Your task to perform on an android device: toggle priority inbox in the gmail app Image 0: 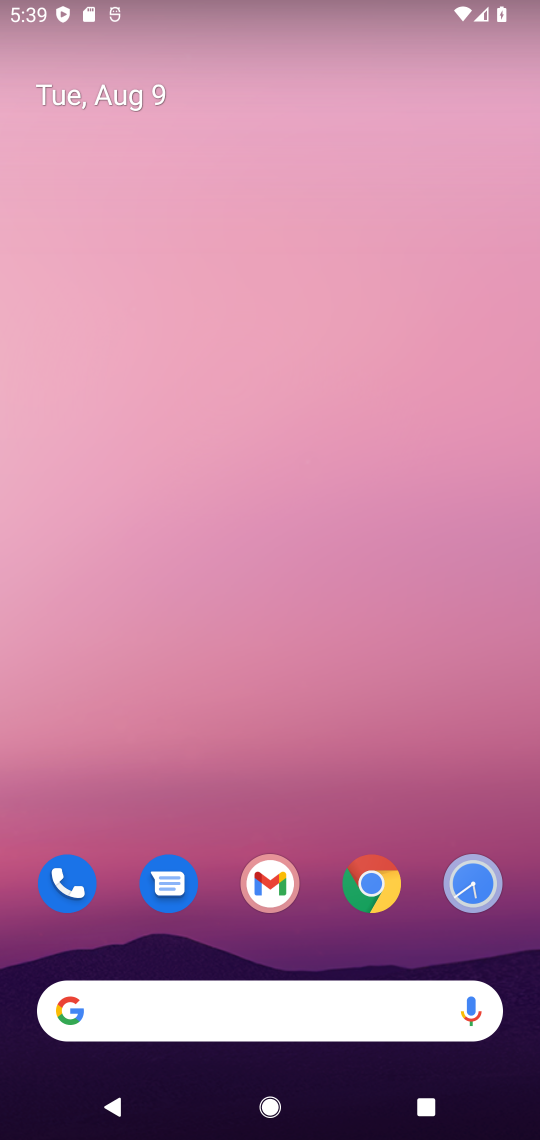
Step 0: drag from (223, 804) to (319, 113)
Your task to perform on an android device: toggle priority inbox in the gmail app Image 1: 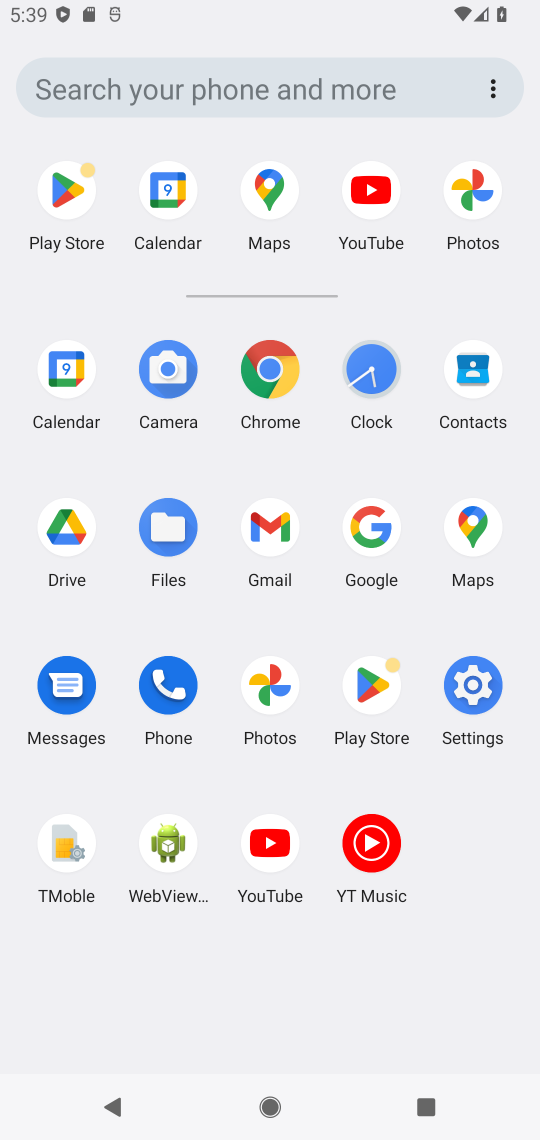
Step 1: click (270, 560)
Your task to perform on an android device: toggle priority inbox in the gmail app Image 2: 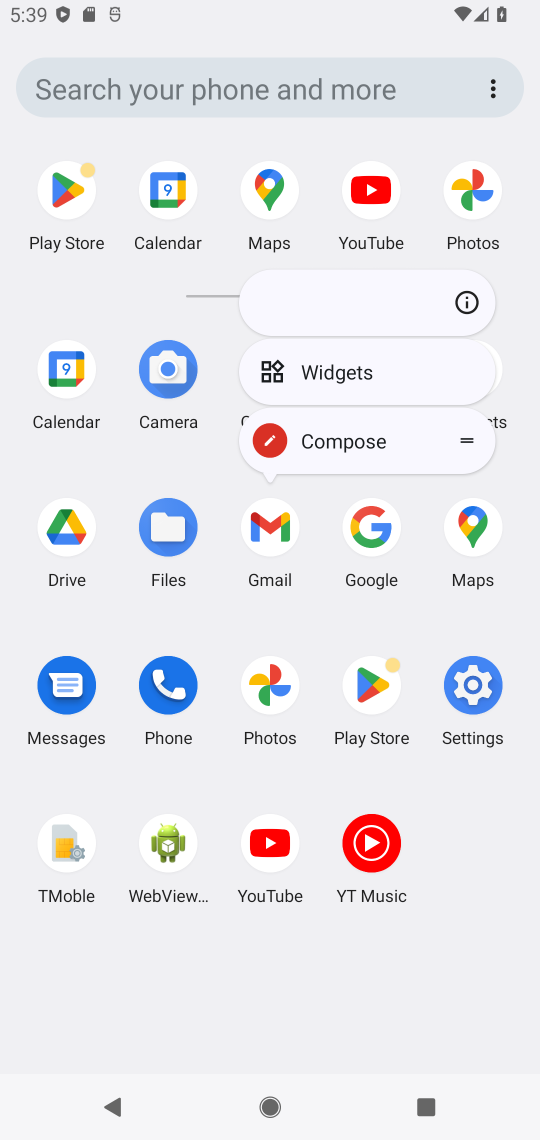
Step 2: click (270, 560)
Your task to perform on an android device: toggle priority inbox in the gmail app Image 3: 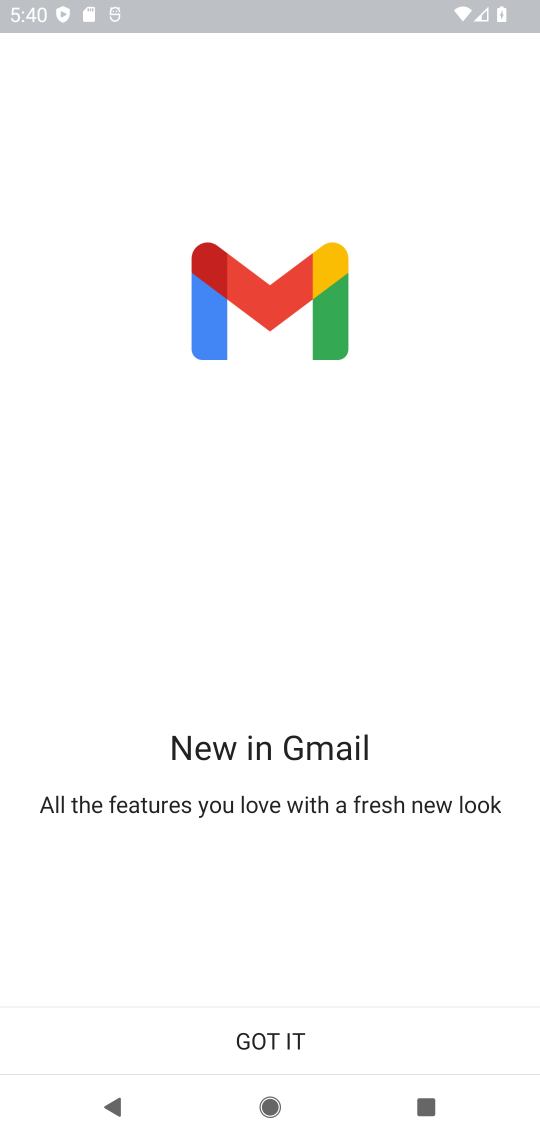
Step 3: click (320, 1078)
Your task to perform on an android device: toggle priority inbox in the gmail app Image 4: 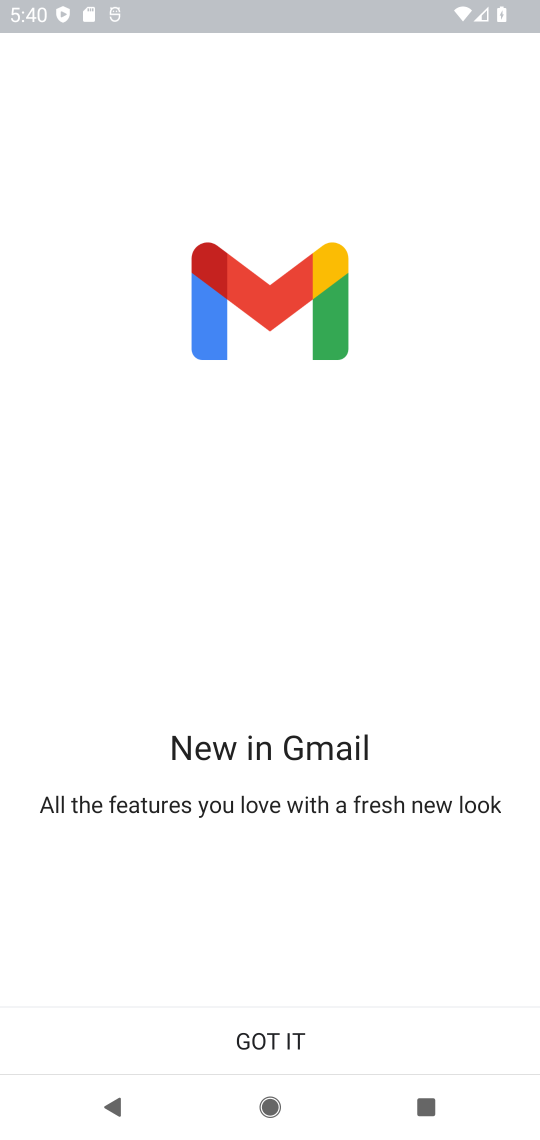
Step 4: click (321, 1051)
Your task to perform on an android device: toggle priority inbox in the gmail app Image 5: 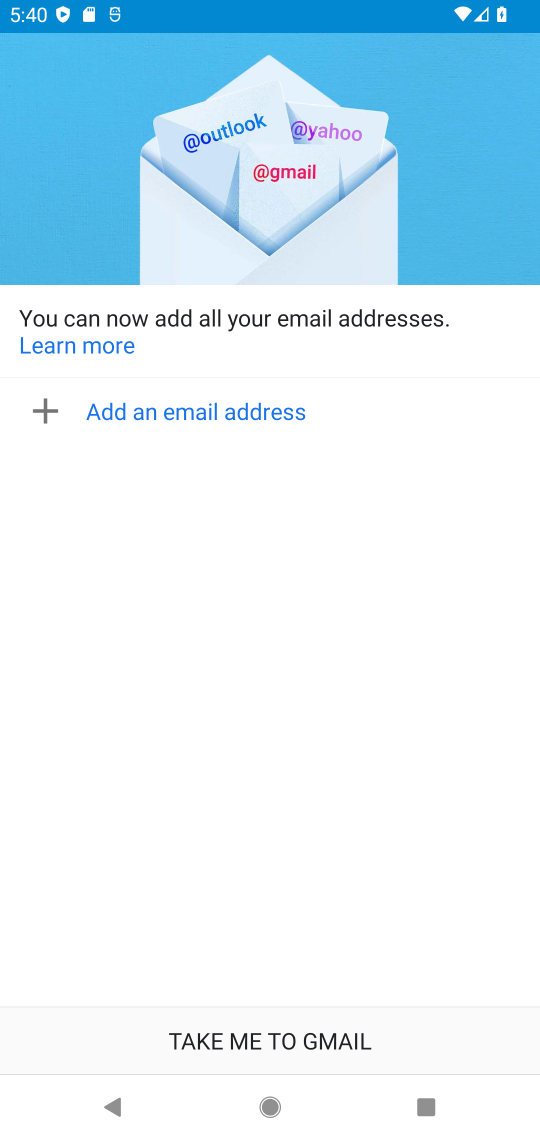
Step 5: click (321, 1049)
Your task to perform on an android device: toggle priority inbox in the gmail app Image 6: 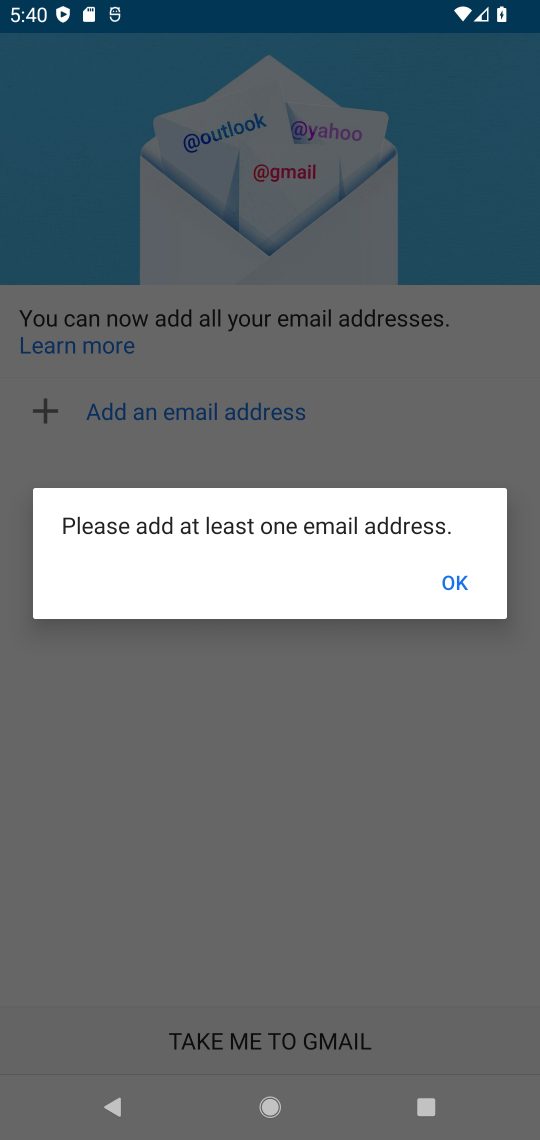
Step 6: click (448, 591)
Your task to perform on an android device: toggle priority inbox in the gmail app Image 7: 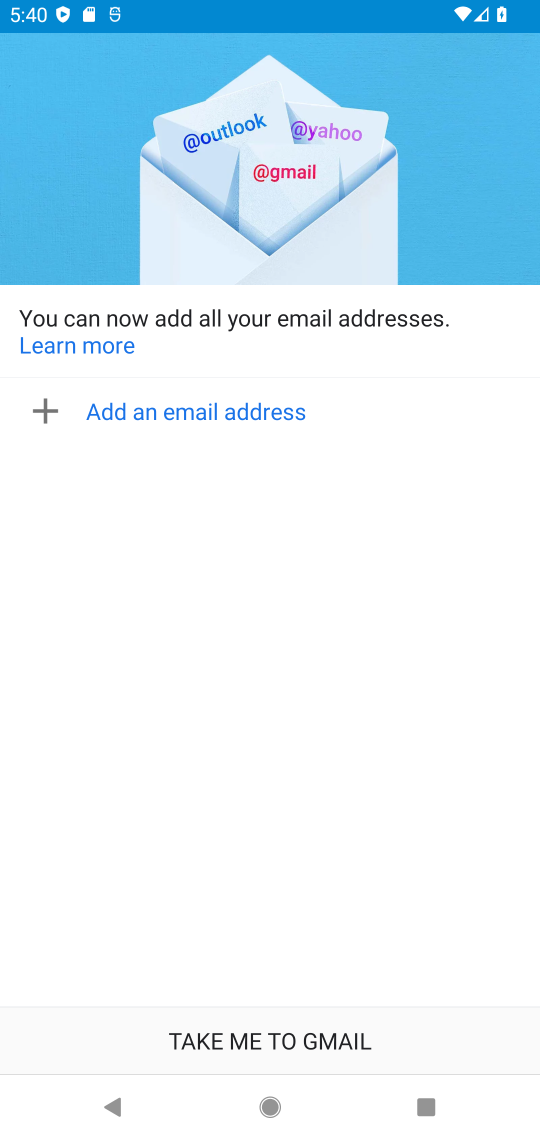
Step 7: click (322, 1032)
Your task to perform on an android device: toggle priority inbox in the gmail app Image 8: 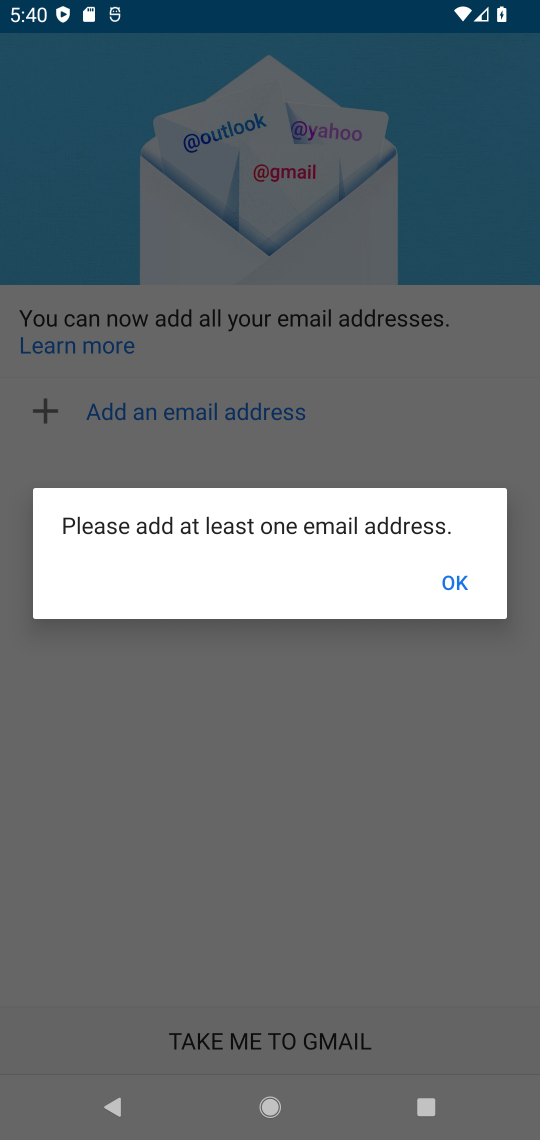
Step 8: task complete